Your task to perform on an android device: Show me recent news Image 0: 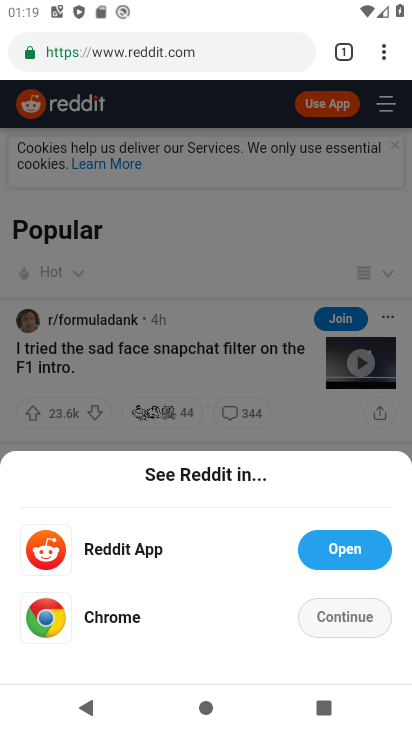
Step 0: click (169, 52)
Your task to perform on an android device: Show me recent news Image 1: 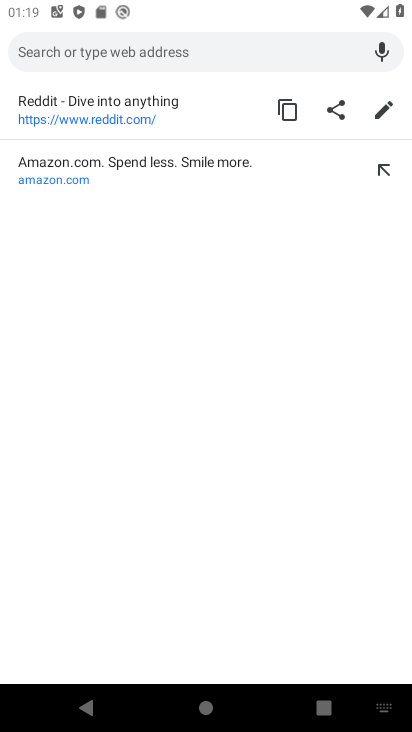
Step 1: type "recent news"
Your task to perform on an android device: Show me recent news Image 2: 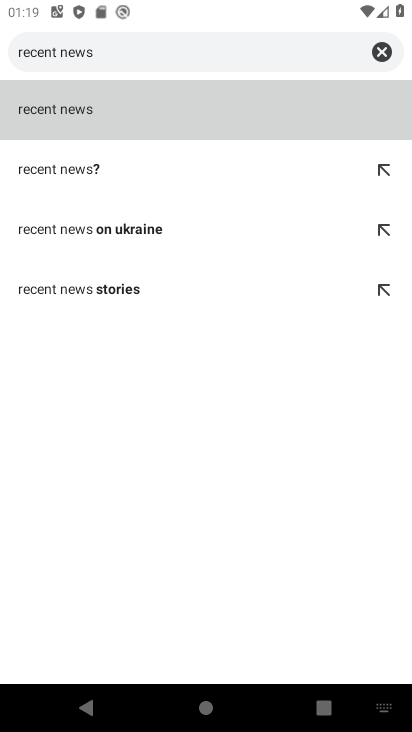
Step 2: click (86, 107)
Your task to perform on an android device: Show me recent news Image 3: 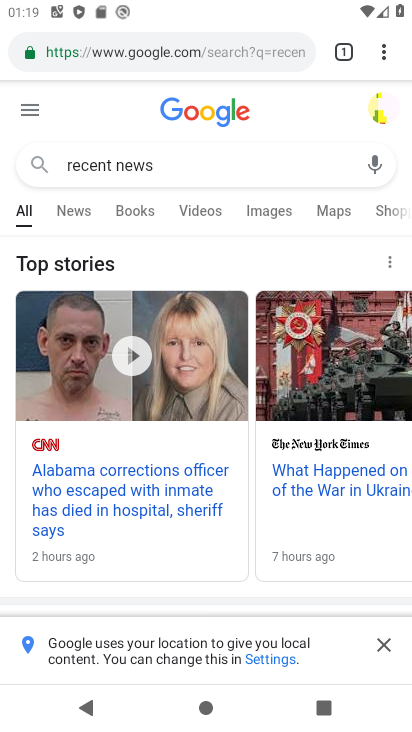
Step 3: task complete